Your task to perform on an android device: Open the calendar and show me this week's events? Image 0: 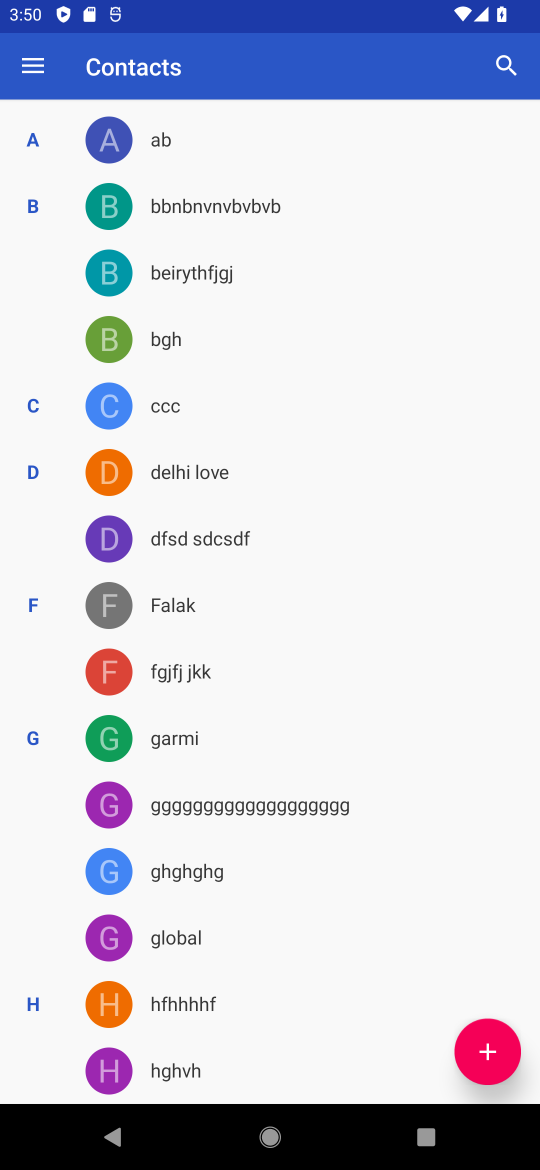
Step 0: press home button
Your task to perform on an android device: Open the calendar and show me this week's events? Image 1: 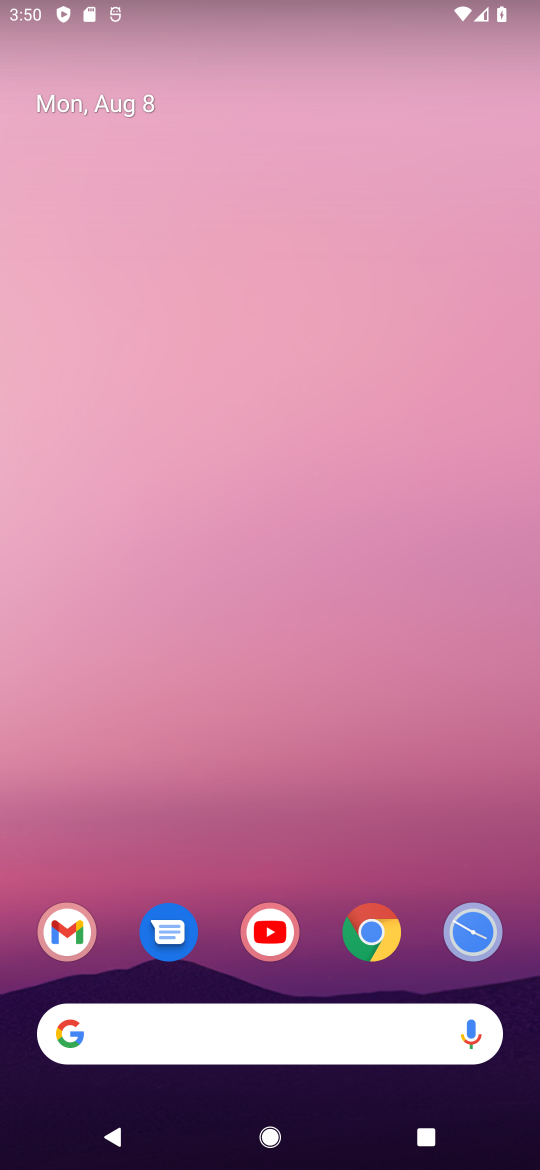
Step 1: drag from (54, 1091) to (362, 233)
Your task to perform on an android device: Open the calendar and show me this week's events? Image 2: 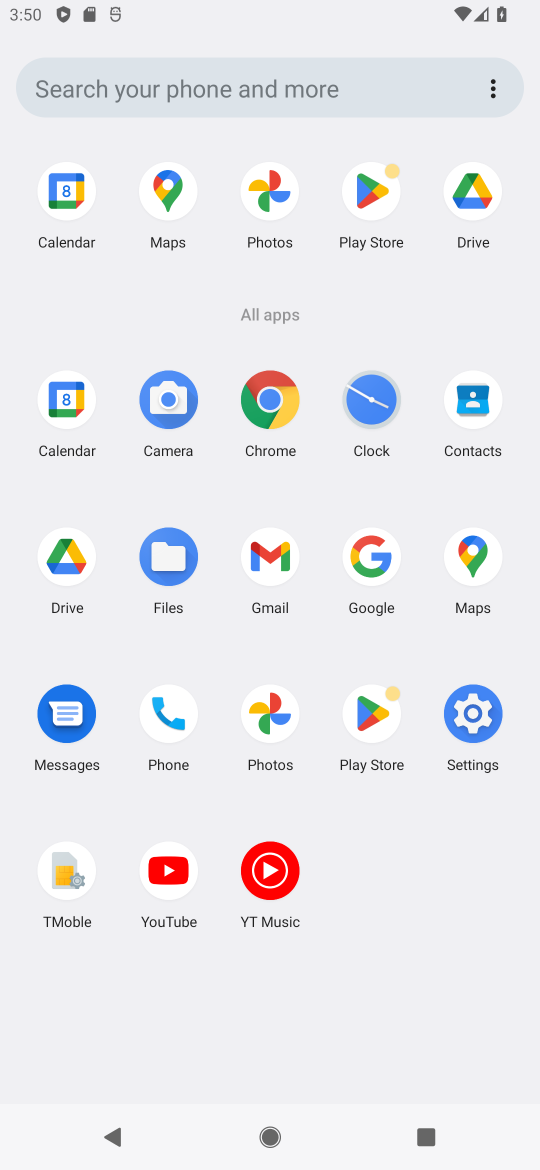
Step 2: click (46, 416)
Your task to perform on an android device: Open the calendar and show me this week's events? Image 3: 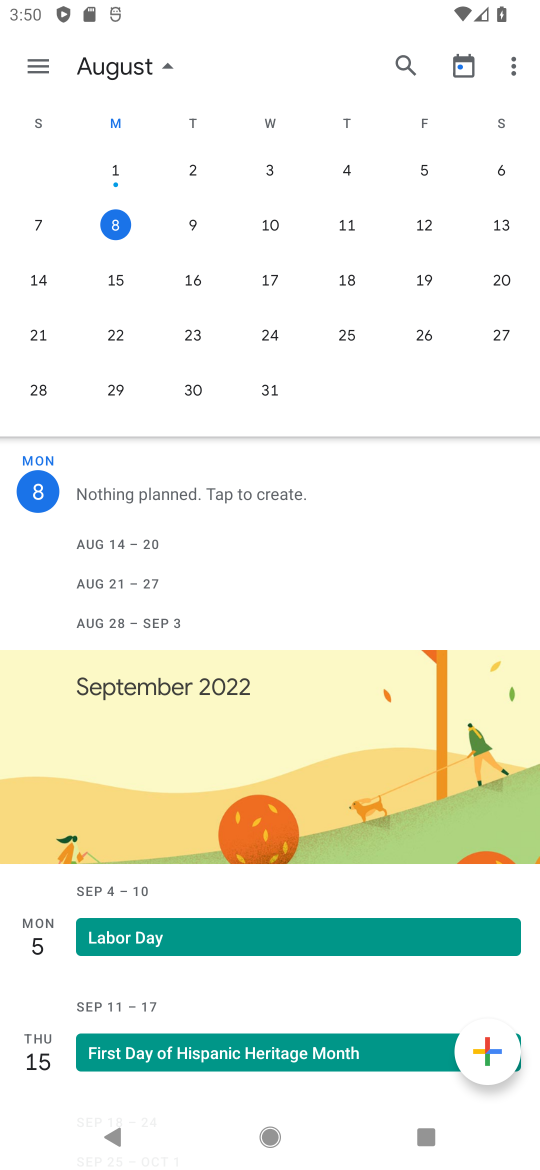
Step 3: click (140, 54)
Your task to perform on an android device: Open the calendar and show me this week's events? Image 4: 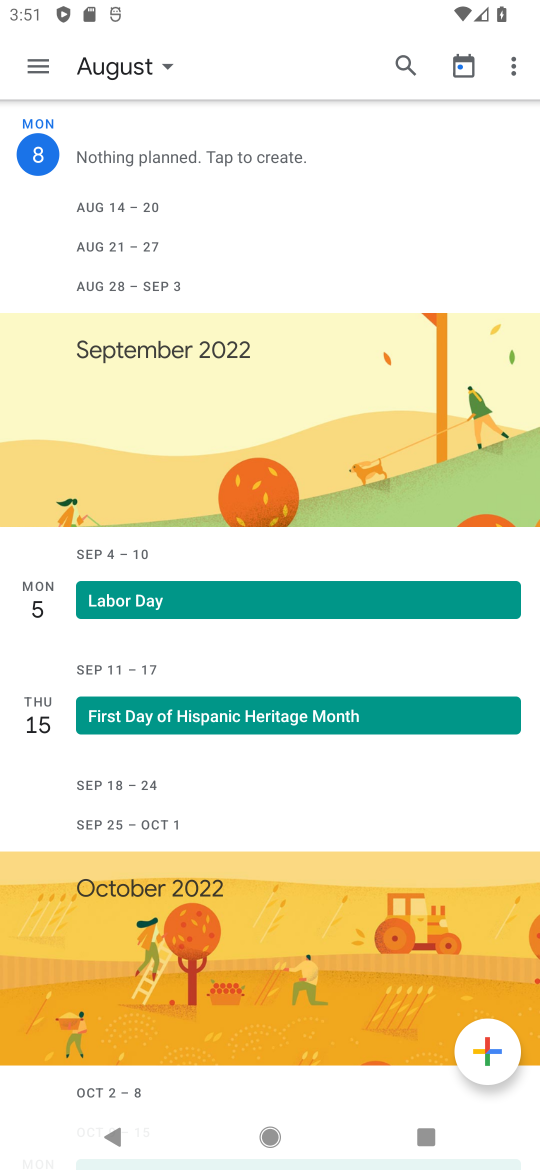
Step 4: click (101, 75)
Your task to perform on an android device: Open the calendar and show me this week's events? Image 5: 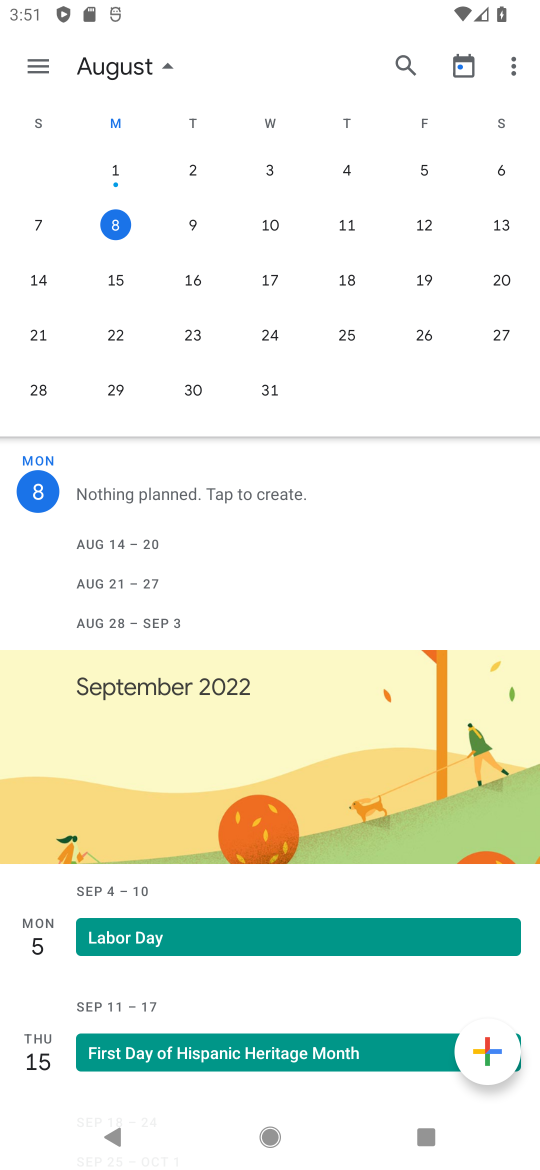
Step 5: drag from (495, 250) to (84, 244)
Your task to perform on an android device: Open the calendar and show me this week's events? Image 6: 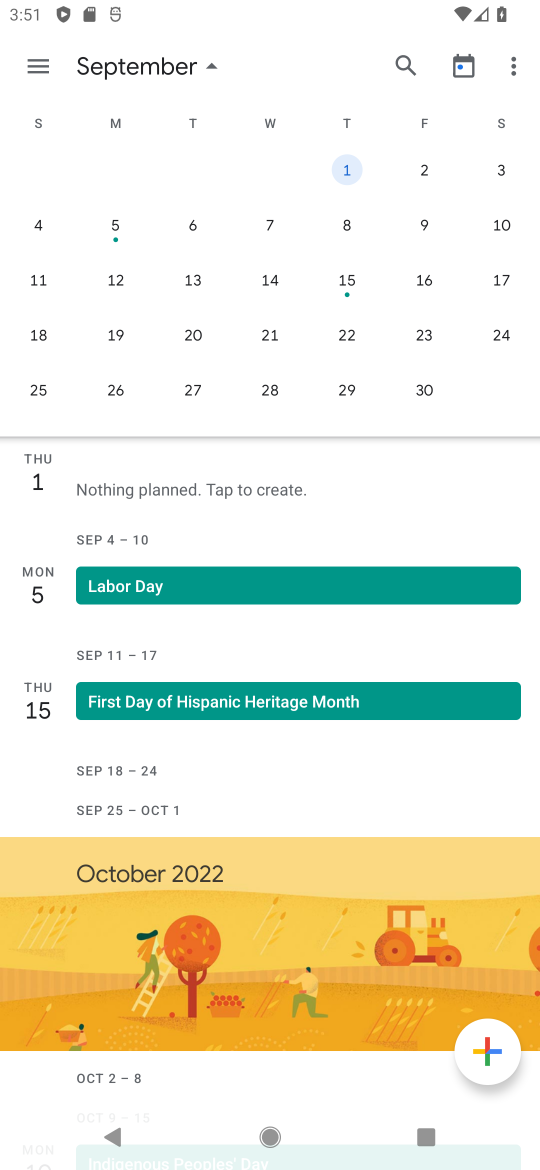
Step 6: drag from (226, 288) to (507, 277)
Your task to perform on an android device: Open the calendar and show me this week's events? Image 7: 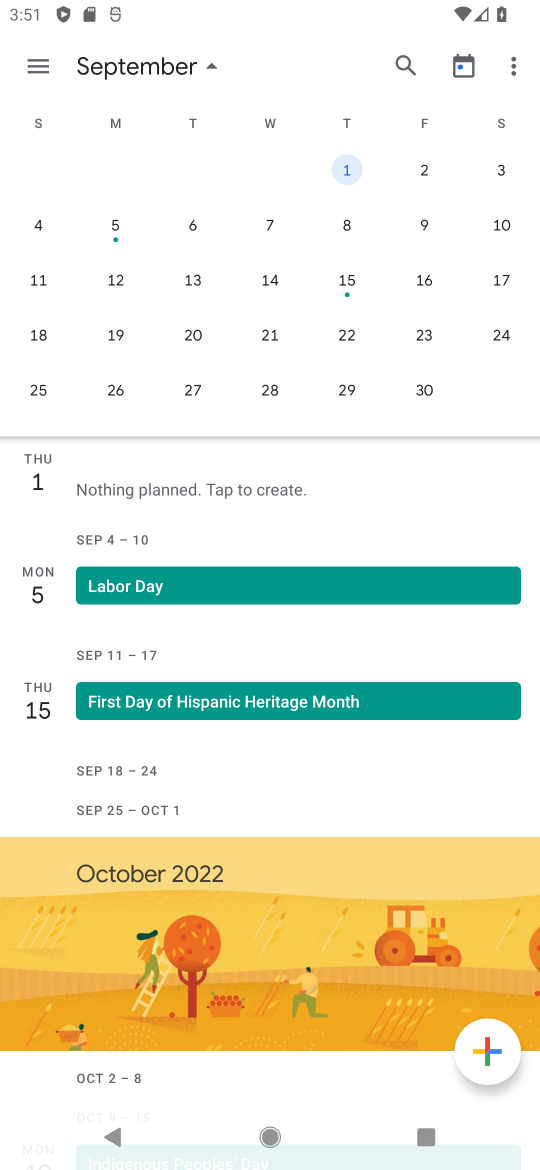
Step 7: drag from (28, 322) to (504, 299)
Your task to perform on an android device: Open the calendar and show me this week's events? Image 8: 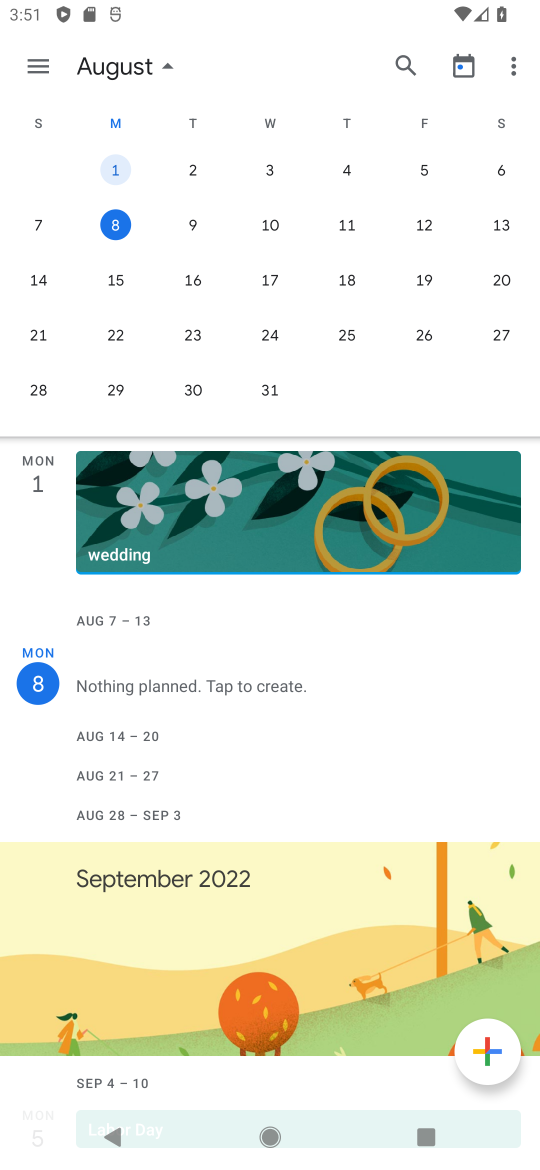
Step 8: click (105, 225)
Your task to perform on an android device: Open the calendar and show me this week's events? Image 9: 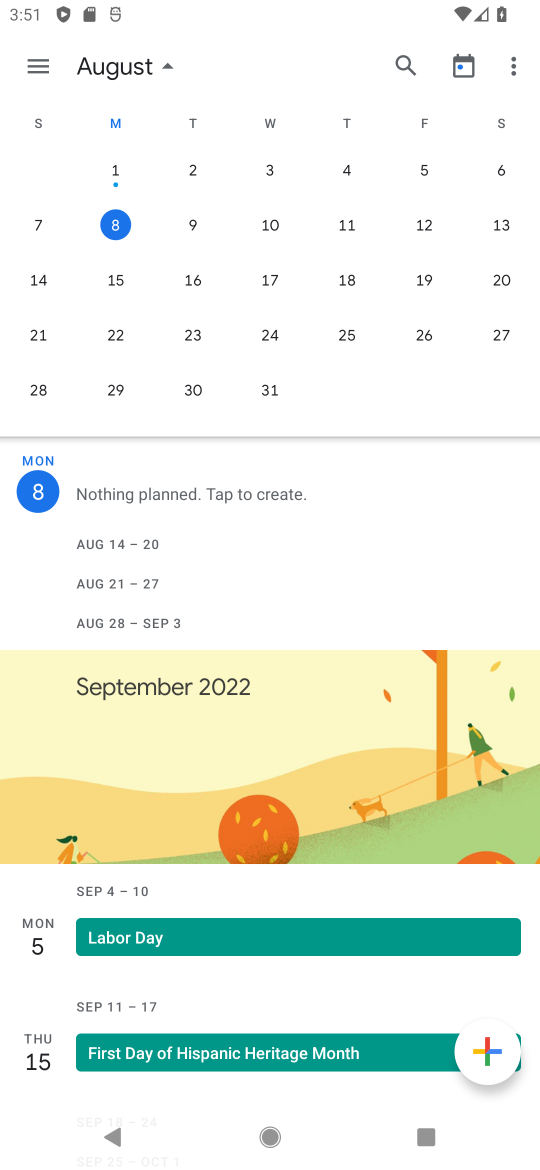
Step 9: task complete